Your task to perform on an android device: Look up the best rated kitchen knives on Amazon. Image 0: 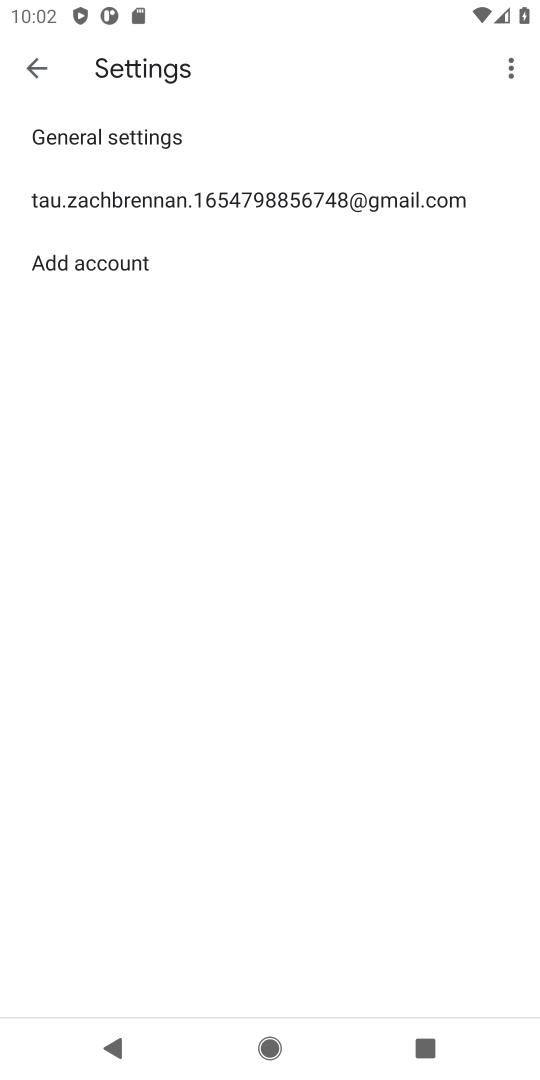
Step 0: press home button
Your task to perform on an android device: Look up the best rated kitchen knives on Amazon. Image 1: 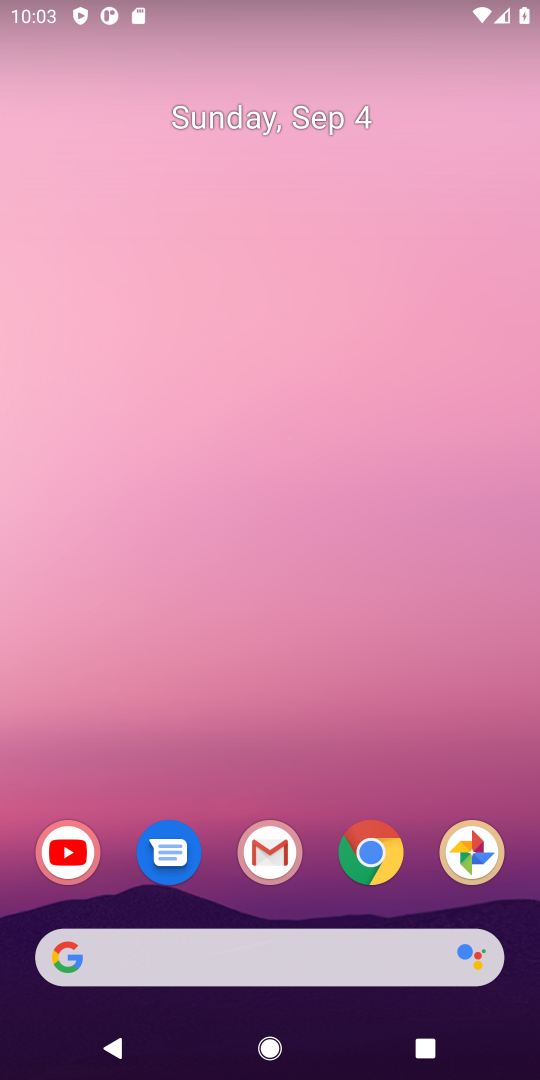
Step 1: drag from (365, 566) to (296, 78)
Your task to perform on an android device: Look up the best rated kitchen knives on Amazon. Image 2: 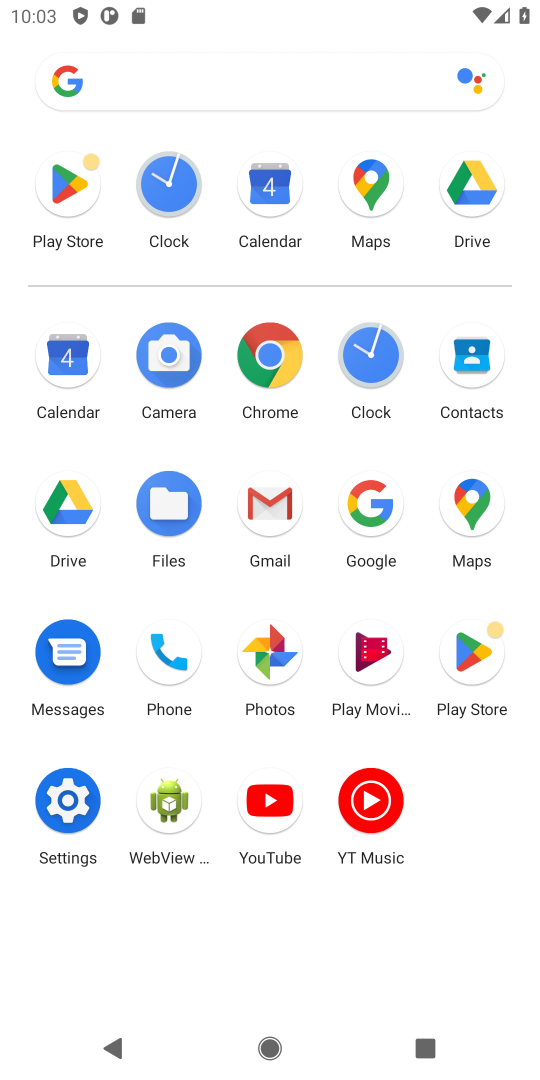
Step 2: click (386, 512)
Your task to perform on an android device: Look up the best rated kitchen knives on Amazon. Image 3: 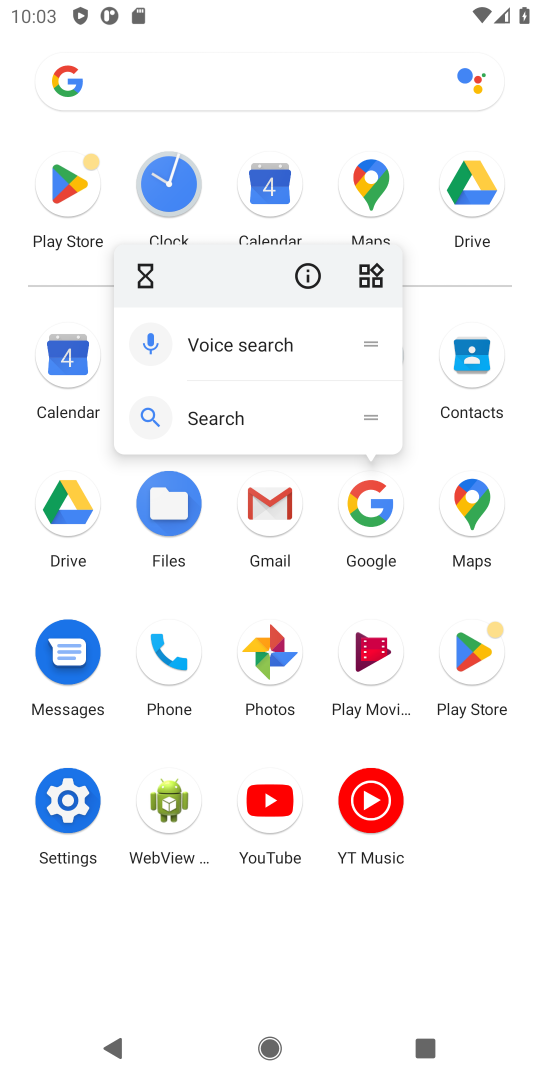
Step 3: click (380, 517)
Your task to perform on an android device: Look up the best rated kitchen knives on Amazon. Image 4: 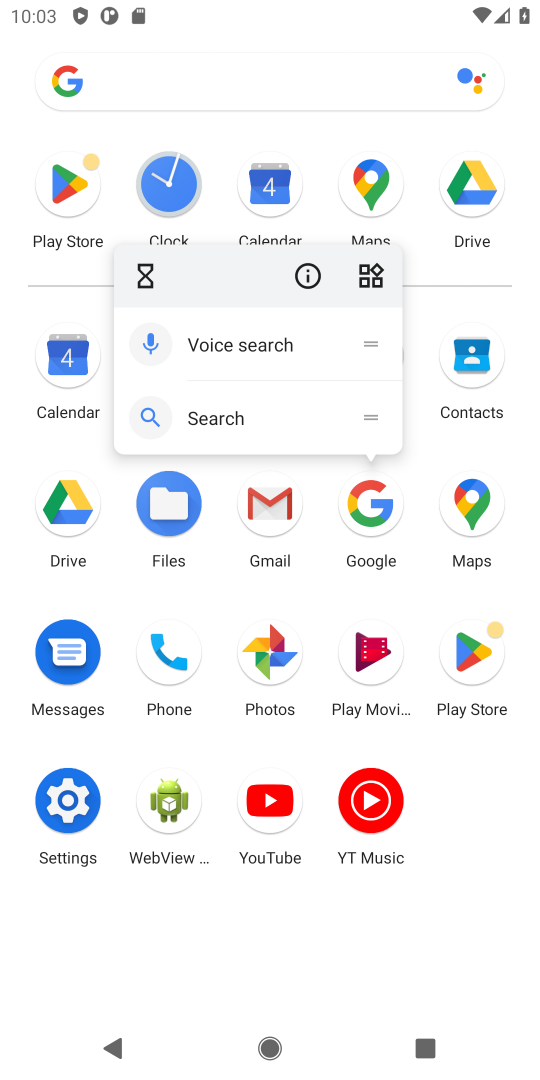
Step 4: click (380, 517)
Your task to perform on an android device: Look up the best rated kitchen knives on Amazon. Image 5: 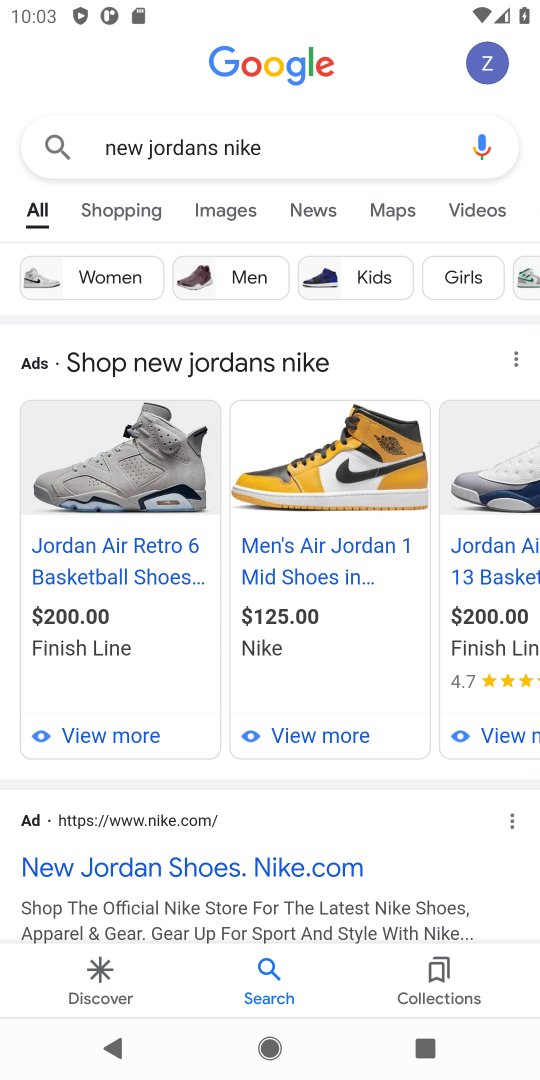
Step 5: press back button
Your task to perform on an android device: Look up the best rated kitchen knives on Amazon. Image 6: 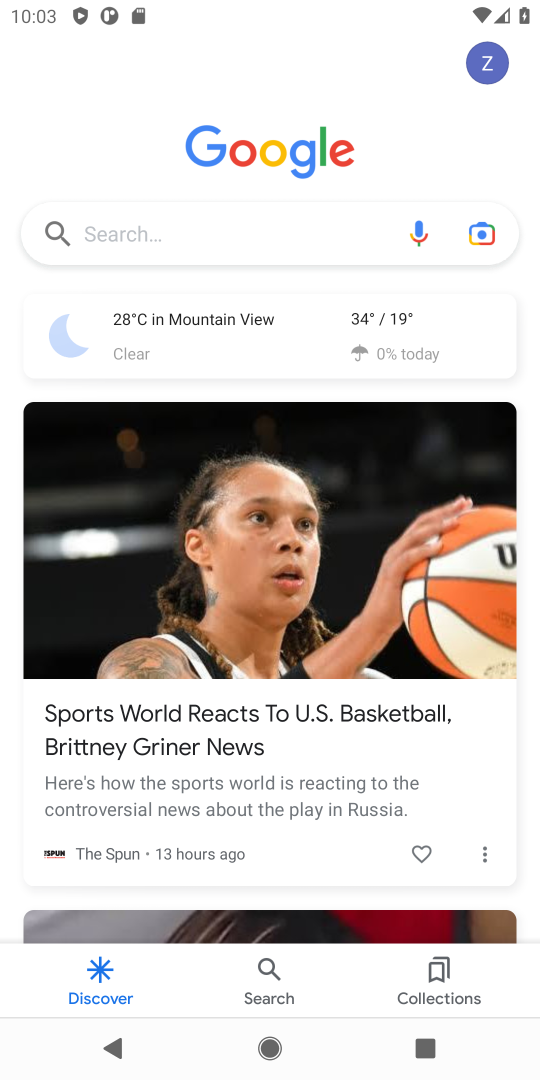
Step 6: click (154, 211)
Your task to perform on an android device: Look up the best rated kitchen knives on Amazon. Image 7: 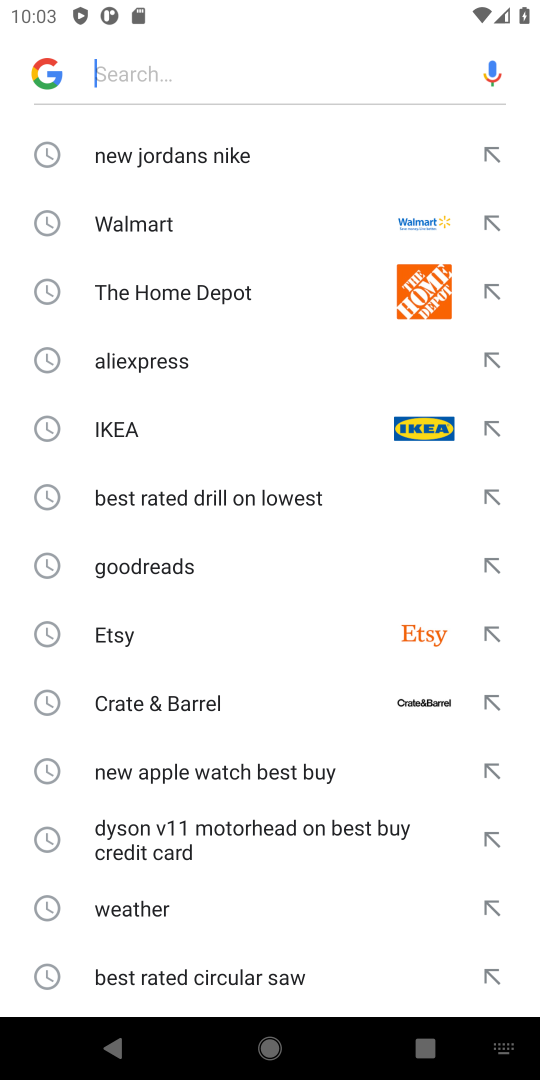
Step 7: type "Amazon"
Your task to perform on an android device: Look up the best rated kitchen knives on Amazon. Image 8: 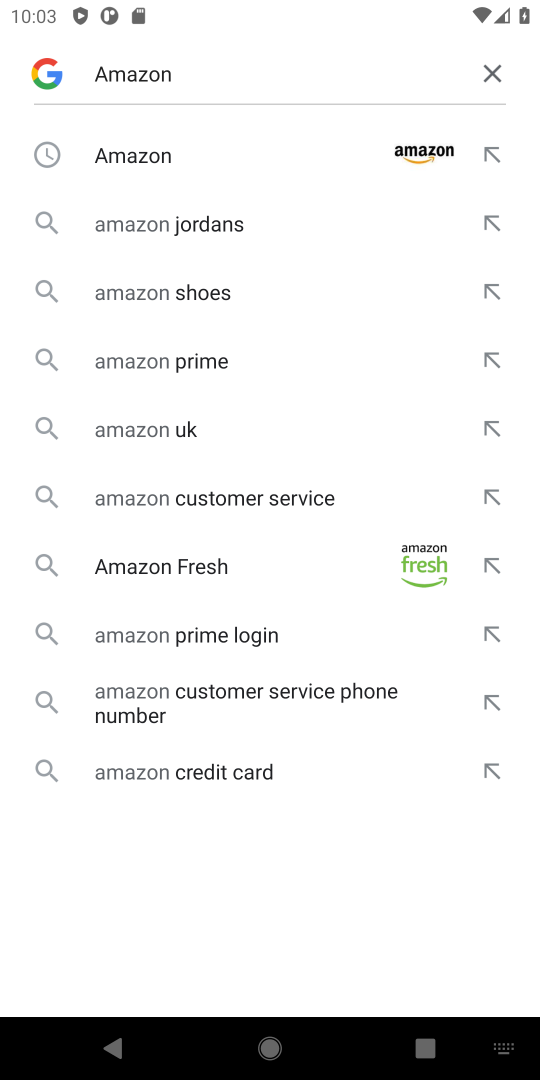
Step 8: click (137, 159)
Your task to perform on an android device: Look up the best rated kitchen knives on Amazon. Image 9: 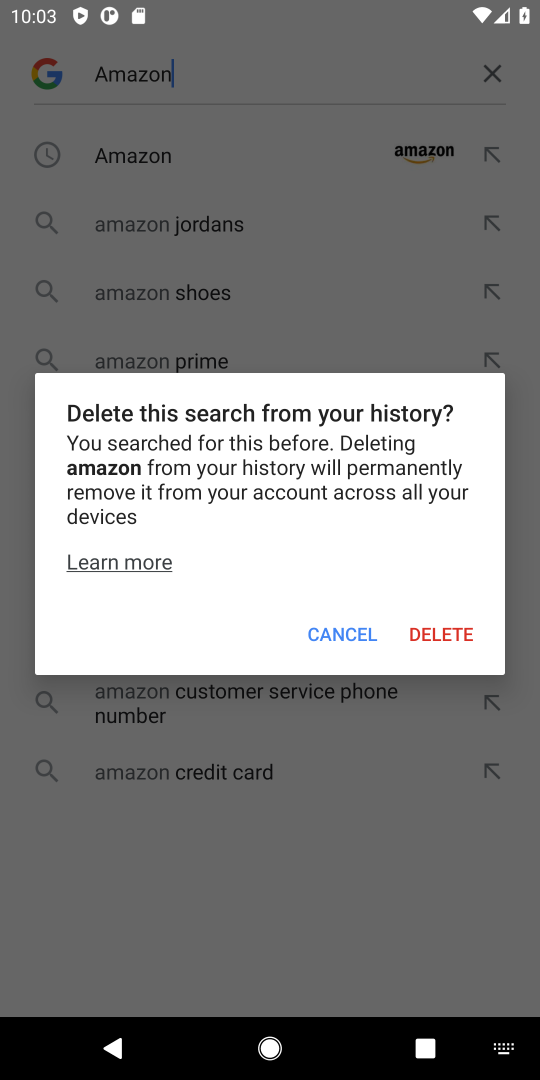
Step 9: click (356, 630)
Your task to perform on an android device: Look up the best rated kitchen knives on Amazon. Image 10: 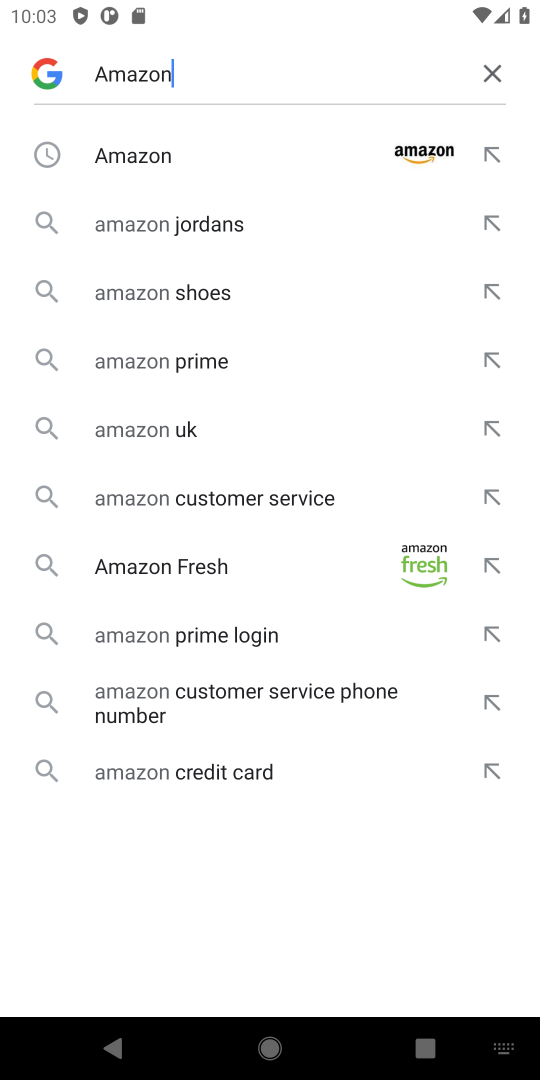
Step 10: click (199, 159)
Your task to perform on an android device: Look up the best rated kitchen knives on Amazon. Image 11: 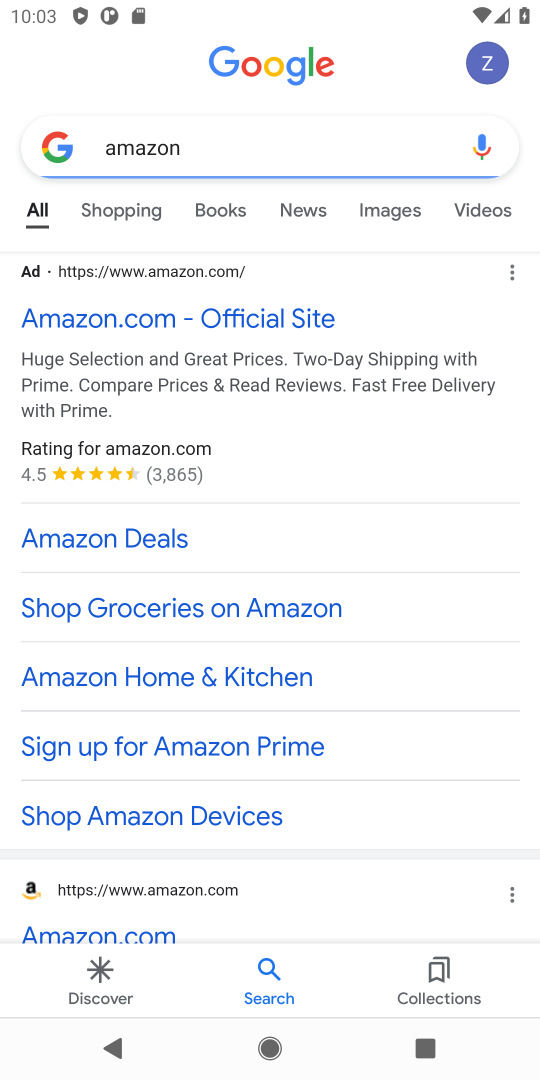
Step 11: click (187, 317)
Your task to perform on an android device: Look up the best rated kitchen knives on Amazon. Image 12: 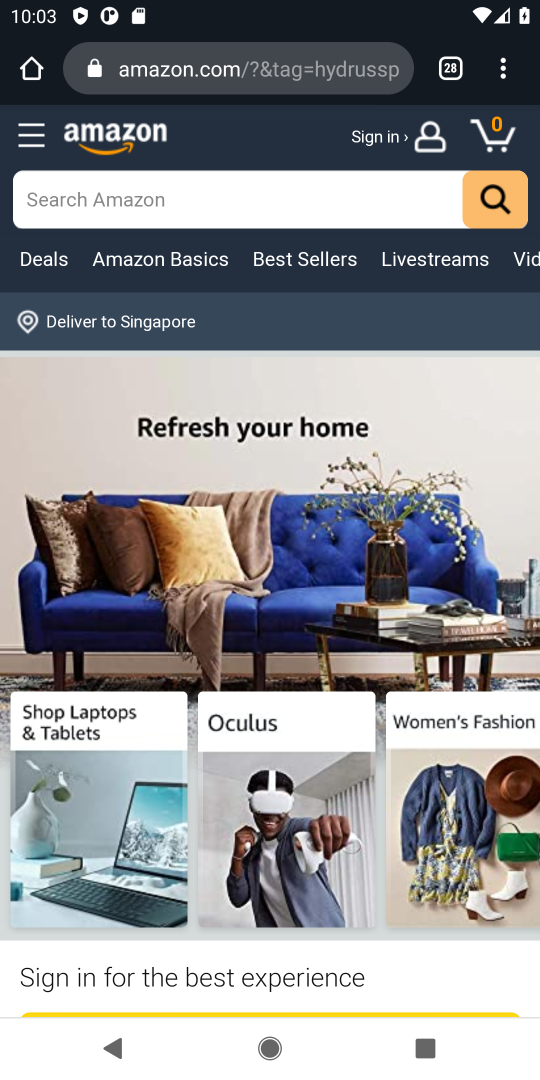
Step 12: click (136, 205)
Your task to perform on an android device: Look up the best rated kitchen knives on Amazon. Image 13: 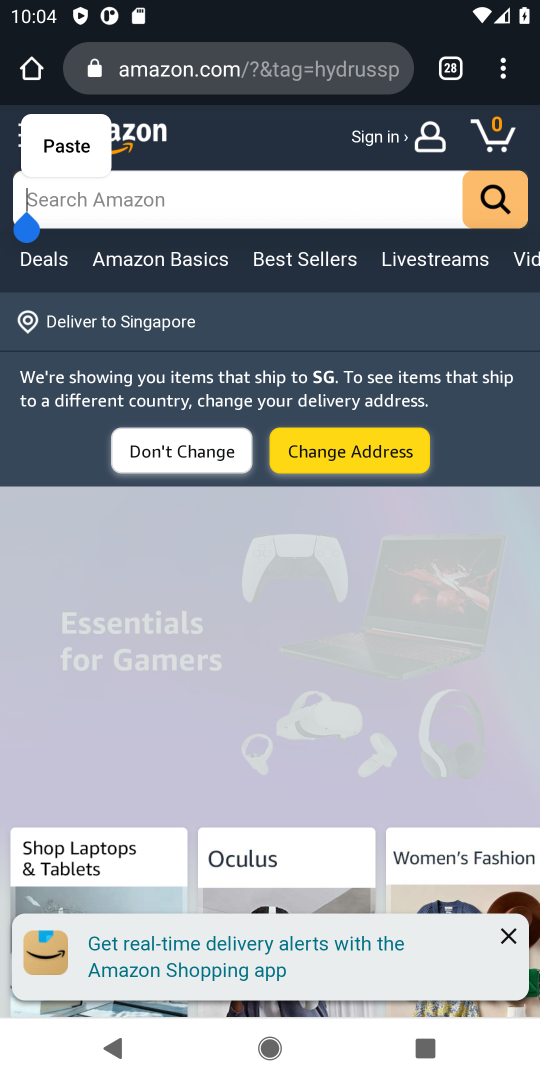
Step 13: type "kitchen knives"
Your task to perform on an android device: Look up the best rated kitchen knives on Amazon. Image 14: 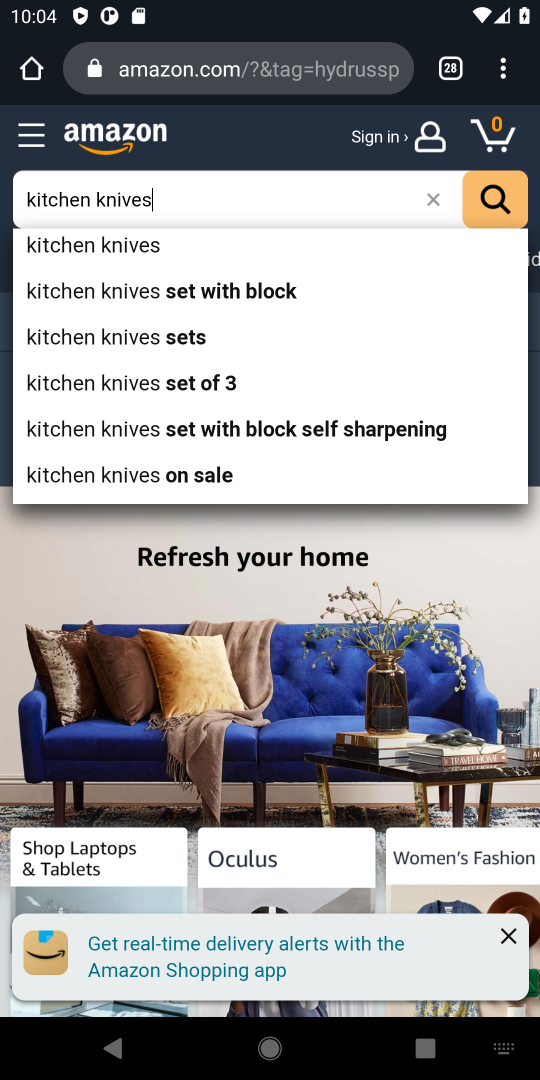
Step 14: click (72, 260)
Your task to perform on an android device: Look up the best rated kitchen knives on Amazon. Image 15: 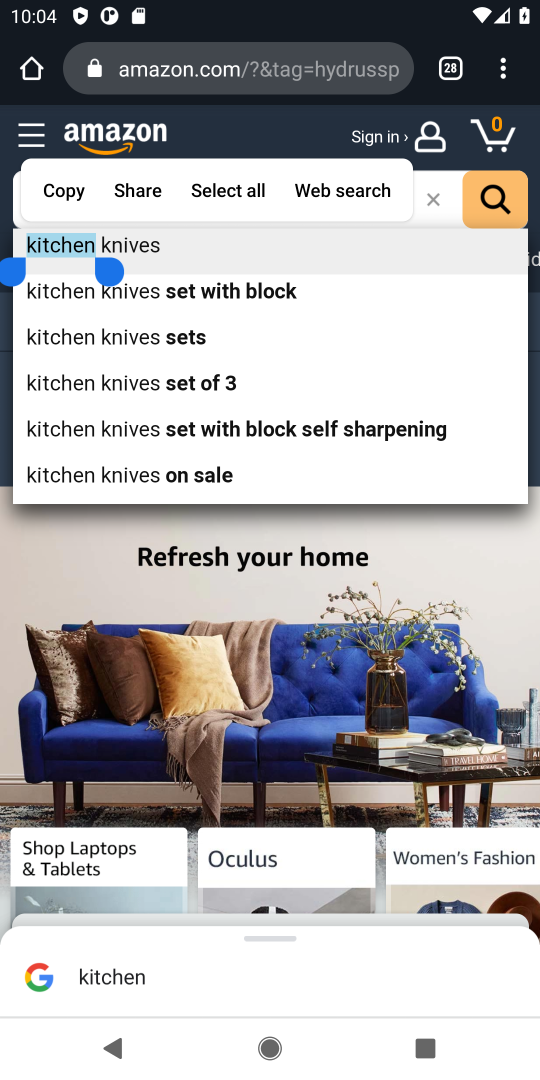
Step 15: click (502, 230)
Your task to perform on an android device: Look up the best rated kitchen knives on Amazon. Image 16: 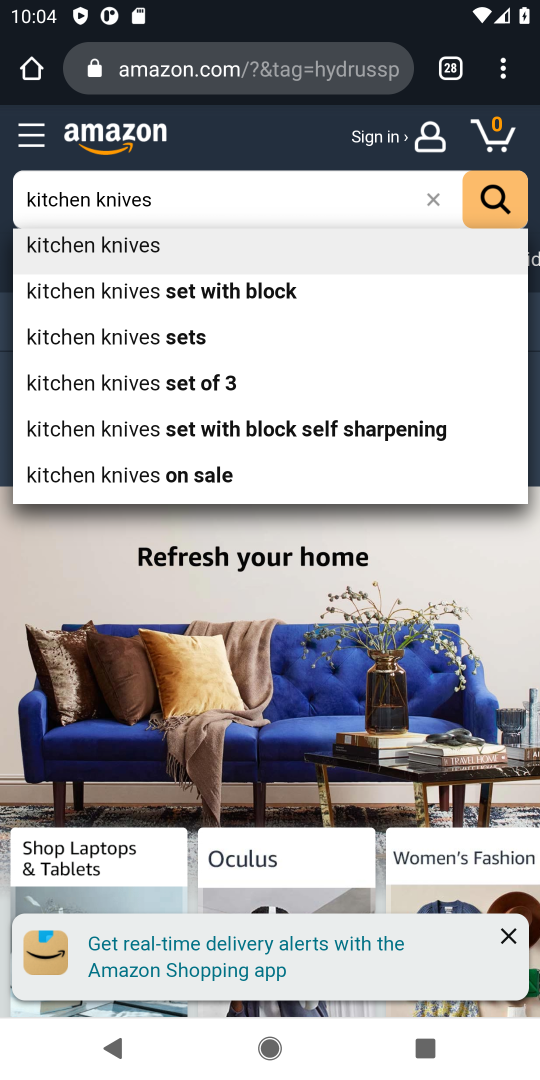
Step 16: click (500, 191)
Your task to perform on an android device: Look up the best rated kitchen knives on Amazon. Image 17: 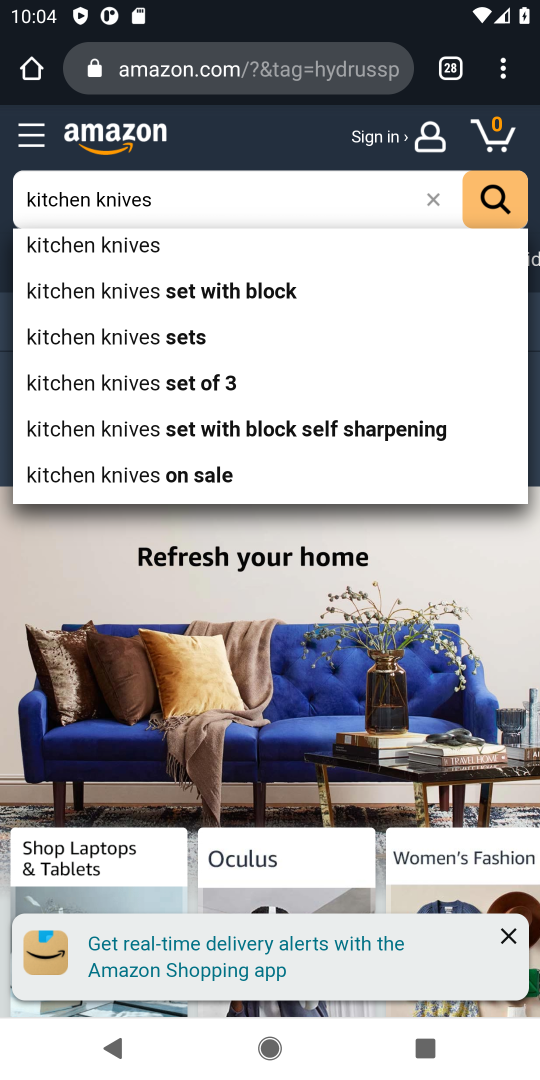
Step 17: click (491, 201)
Your task to perform on an android device: Look up the best rated kitchen knives on Amazon. Image 18: 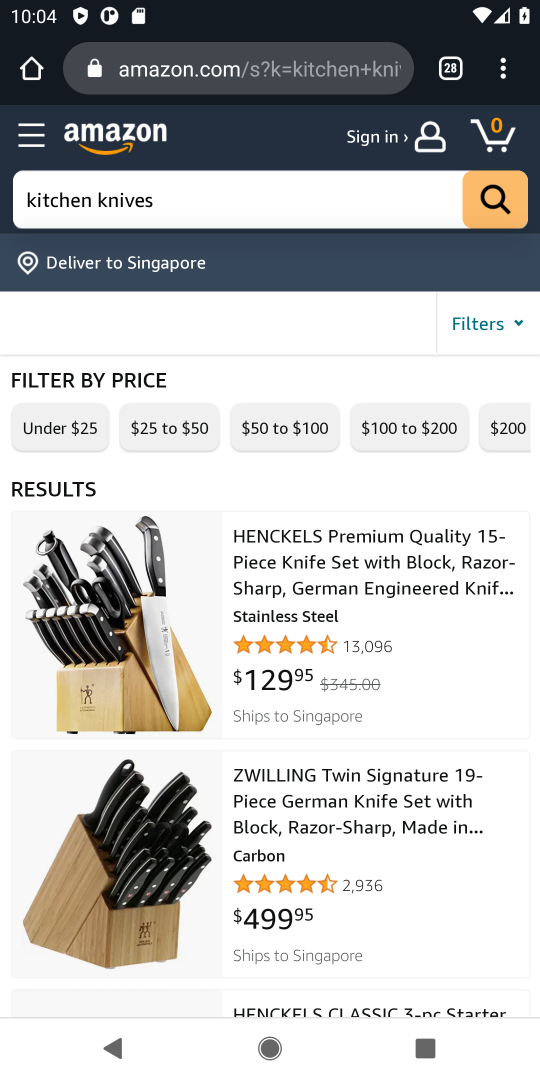
Step 18: task complete